Your task to perform on an android device: Show me popular games on the Play Store Image 0: 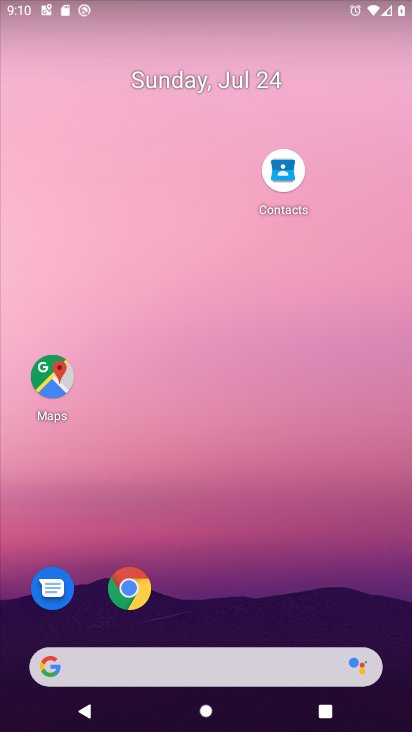
Step 0: press home button
Your task to perform on an android device: Show me popular games on the Play Store Image 1: 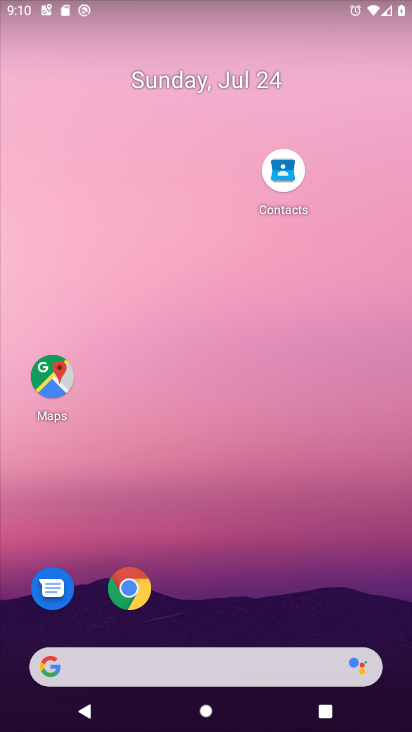
Step 1: drag from (201, 628) to (228, 97)
Your task to perform on an android device: Show me popular games on the Play Store Image 2: 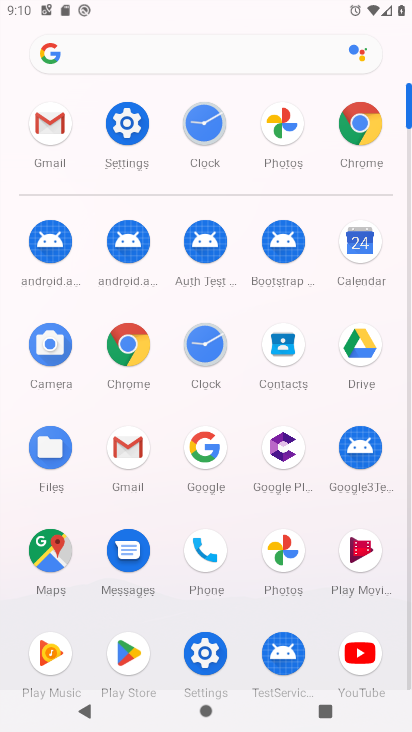
Step 2: click (124, 649)
Your task to perform on an android device: Show me popular games on the Play Store Image 3: 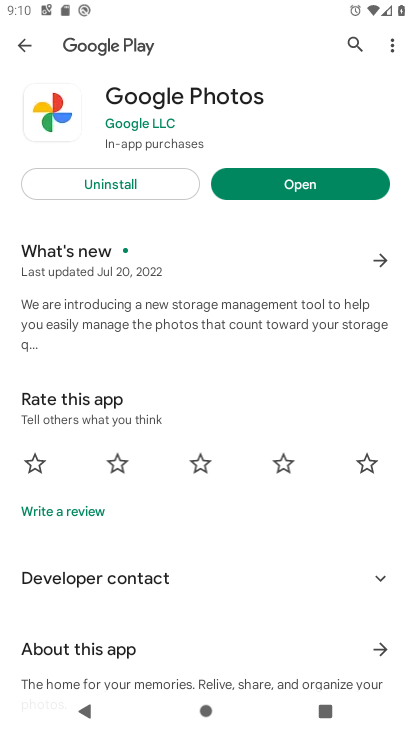
Step 3: click (24, 41)
Your task to perform on an android device: Show me popular games on the Play Store Image 4: 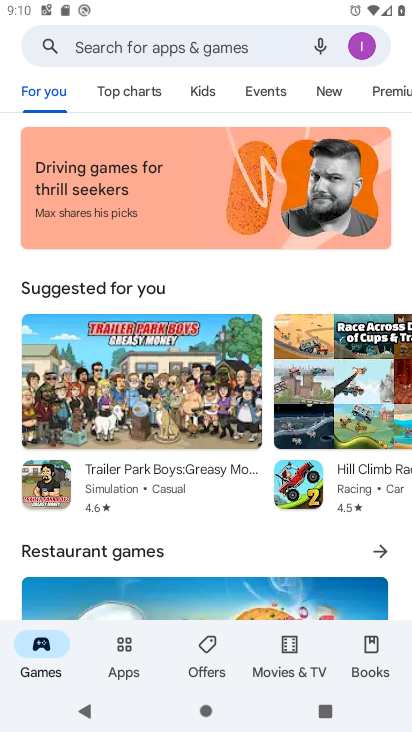
Step 4: task complete